Your task to perform on an android device: Search for Mexican restaurants on Maps Image 0: 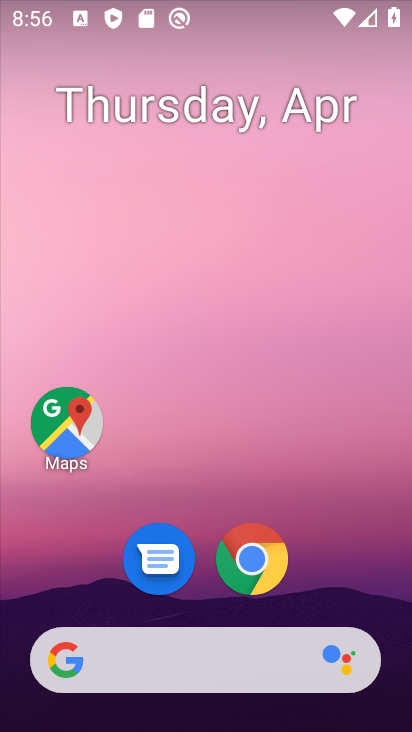
Step 0: click (68, 434)
Your task to perform on an android device: Search for Mexican restaurants on Maps Image 1: 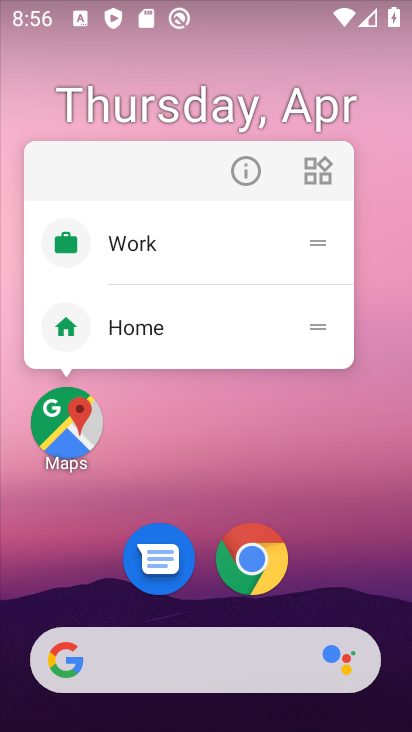
Step 1: click (68, 434)
Your task to perform on an android device: Search for Mexican restaurants on Maps Image 2: 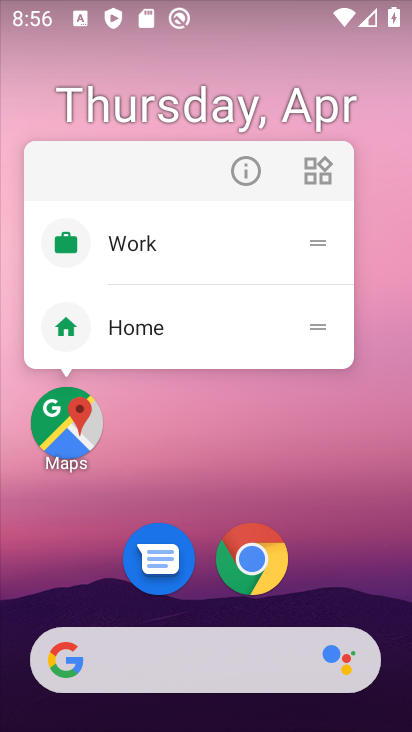
Step 2: click (64, 431)
Your task to perform on an android device: Search for Mexican restaurants on Maps Image 3: 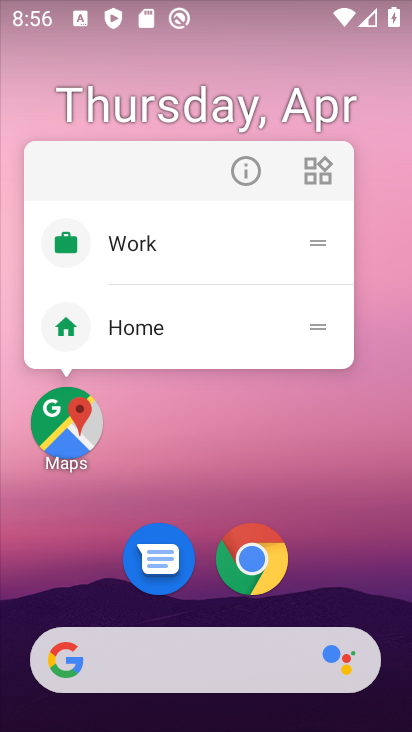
Step 3: click (64, 431)
Your task to perform on an android device: Search for Mexican restaurants on Maps Image 4: 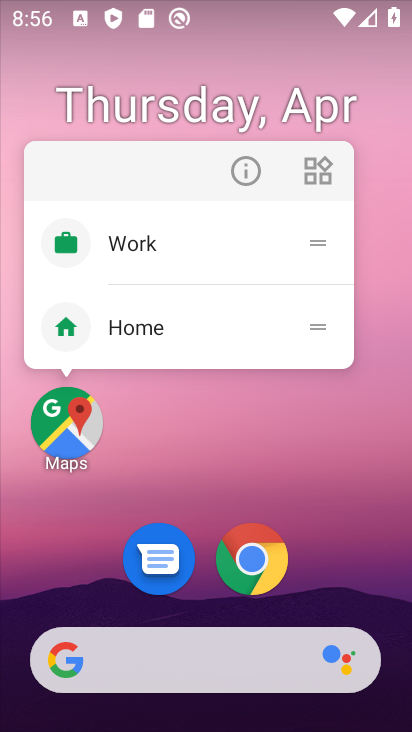
Step 4: click (64, 431)
Your task to perform on an android device: Search for Mexican restaurants on Maps Image 5: 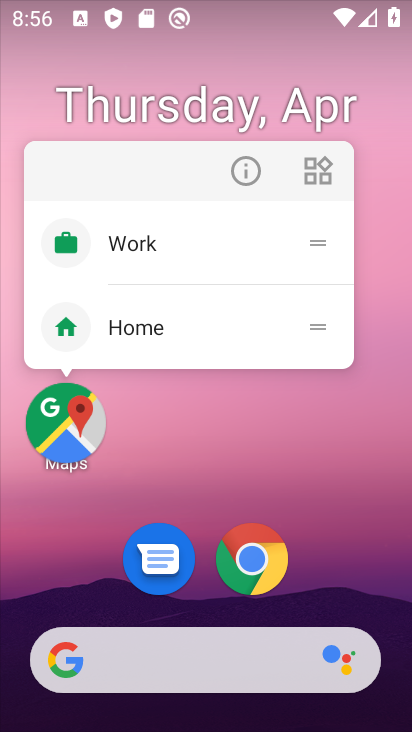
Step 5: click (64, 431)
Your task to perform on an android device: Search for Mexican restaurants on Maps Image 6: 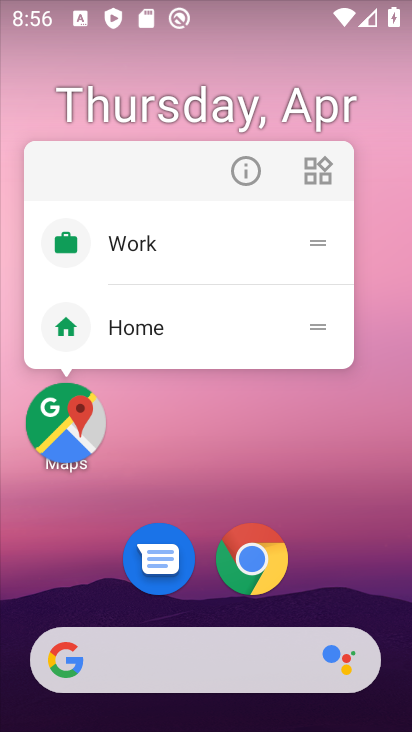
Step 6: click (64, 431)
Your task to perform on an android device: Search for Mexican restaurants on Maps Image 7: 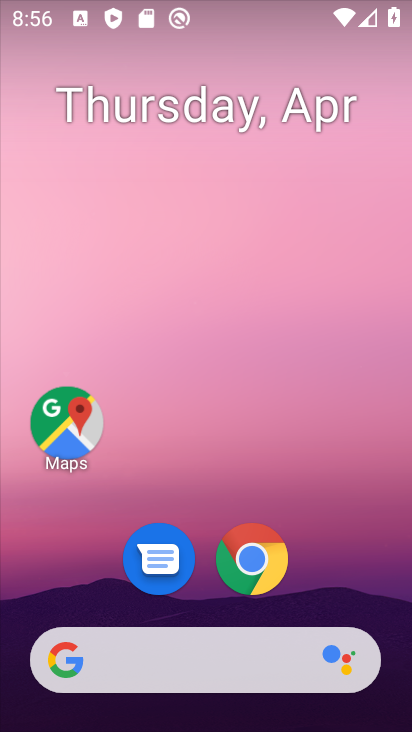
Step 7: click (64, 431)
Your task to perform on an android device: Search for Mexican restaurants on Maps Image 8: 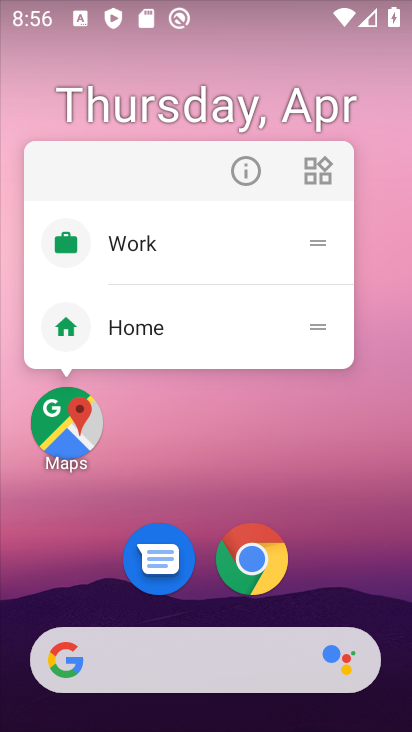
Step 8: click (64, 431)
Your task to perform on an android device: Search for Mexican restaurants on Maps Image 9: 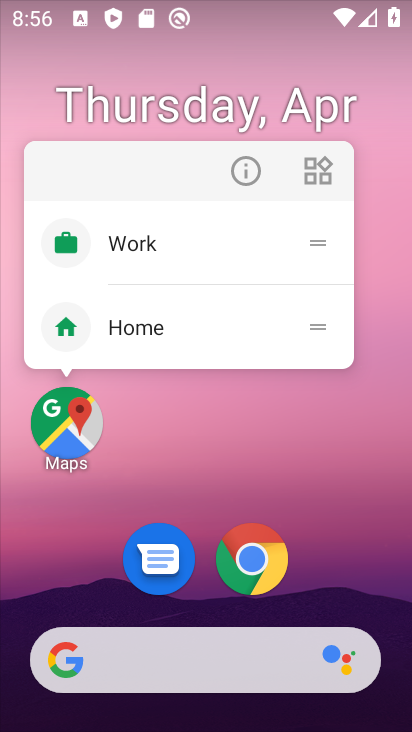
Step 9: click (64, 431)
Your task to perform on an android device: Search for Mexican restaurants on Maps Image 10: 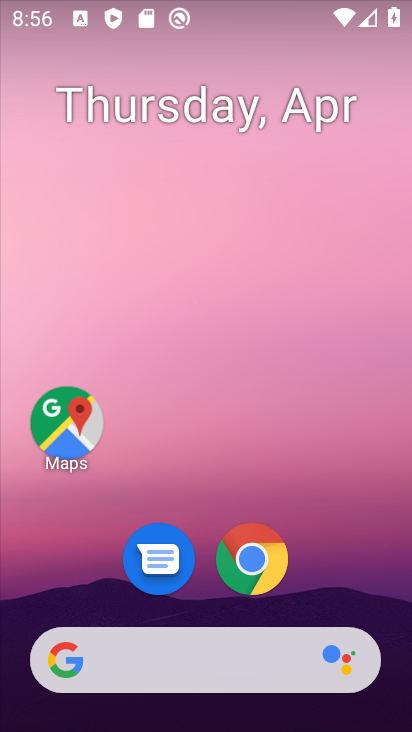
Step 10: click (64, 431)
Your task to perform on an android device: Search for Mexican restaurants on Maps Image 11: 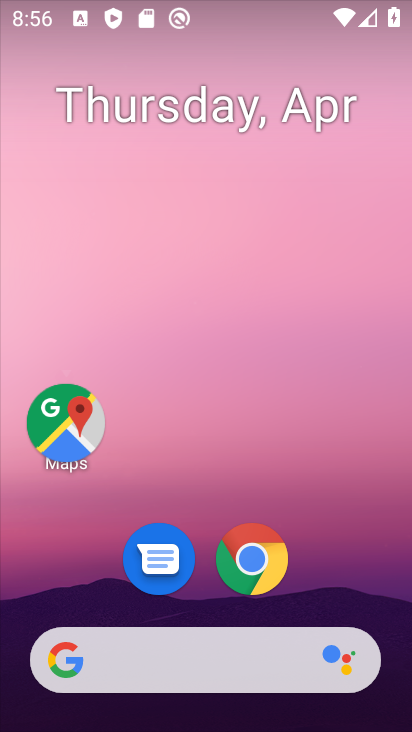
Step 11: click (64, 431)
Your task to perform on an android device: Search for Mexican restaurants on Maps Image 12: 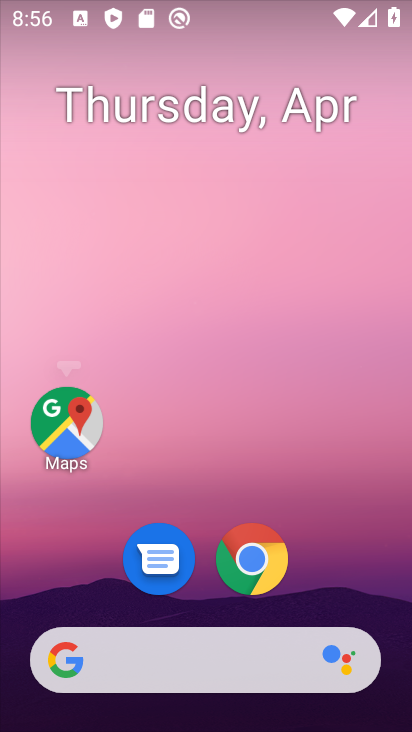
Step 12: click (64, 431)
Your task to perform on an android device: Search for Mexican restaurants on Maps Image 13: 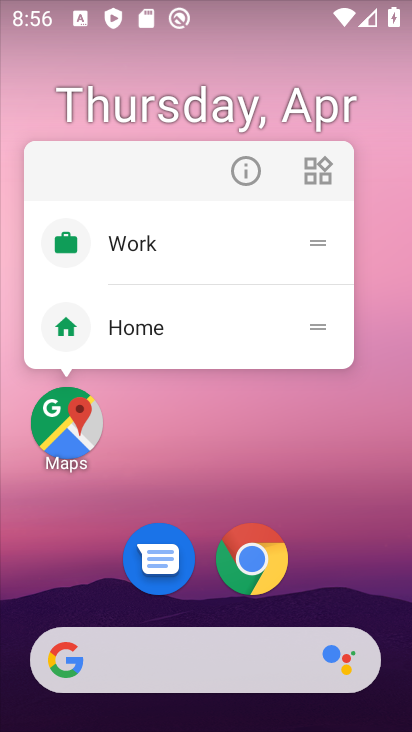
Step 13: click (64, 431)
Your task to perform on an android device: Search for Mexican restaurants on Maps Image 14: 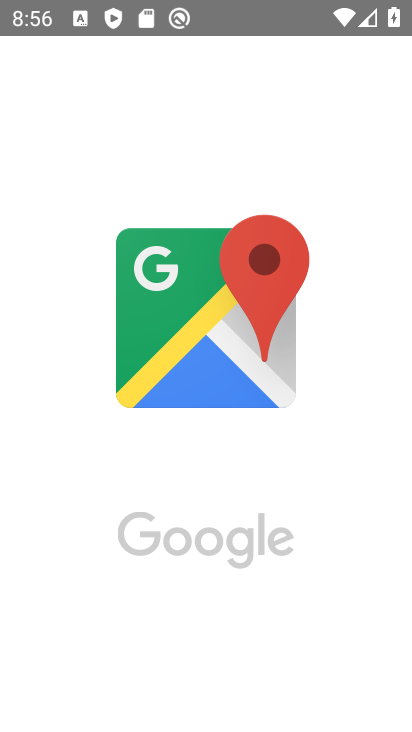
Step 14: click (64, 431)
Your task to perform on an android device: Search for Mexican restaurants on Maps Image 15: 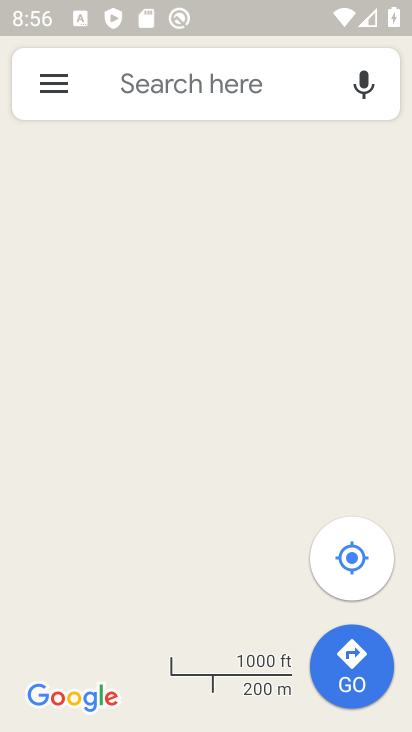
Step 15: click (179, 63)
Your task to perform on an android device: Search for Mexican restaurants on Maps Image 16: 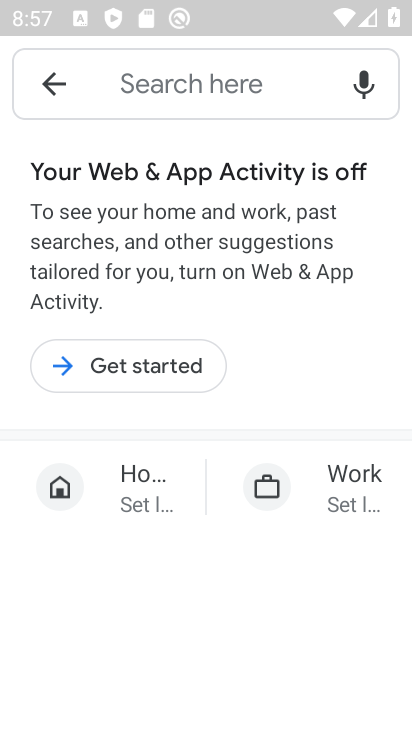
Step 16: click (198, 86)
Your task to perform on an android device: Search for Mexican restaurants on Maps Image 17: 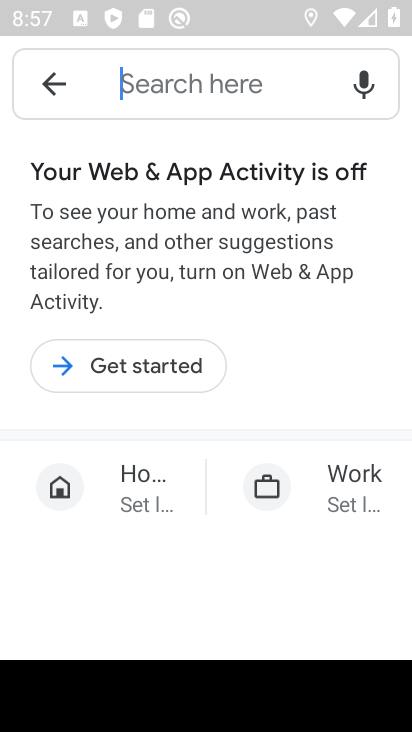
Step 17: type "mexican "
Your task to perform on an android device: Search for Mexican restaurants on Maps Image 18: 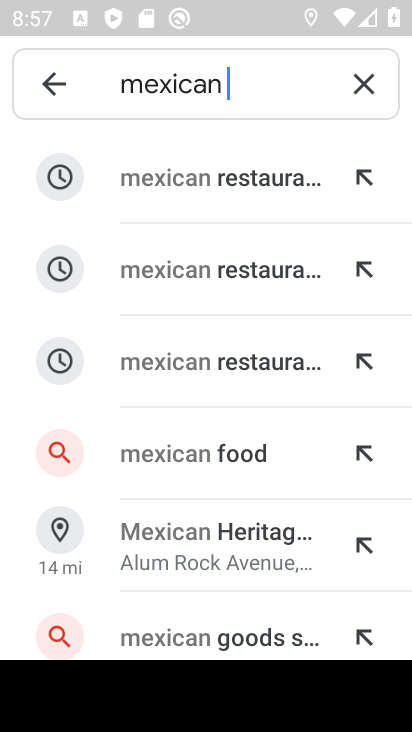
Step 18: click (247, 177)
Your task to perform on an android device: Search for Mexican restaurants on Maps Image 19: 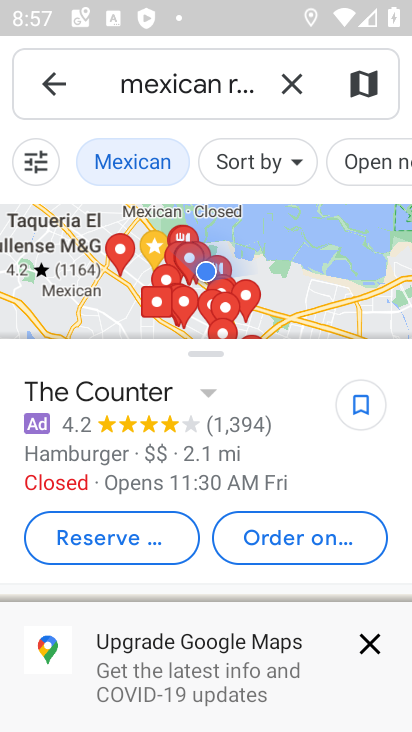
Step 19: task complete